Your task to perform on an android device: Search for "macbook air" on ebay.com, select the first entry, and add it to the cart. Image 0: 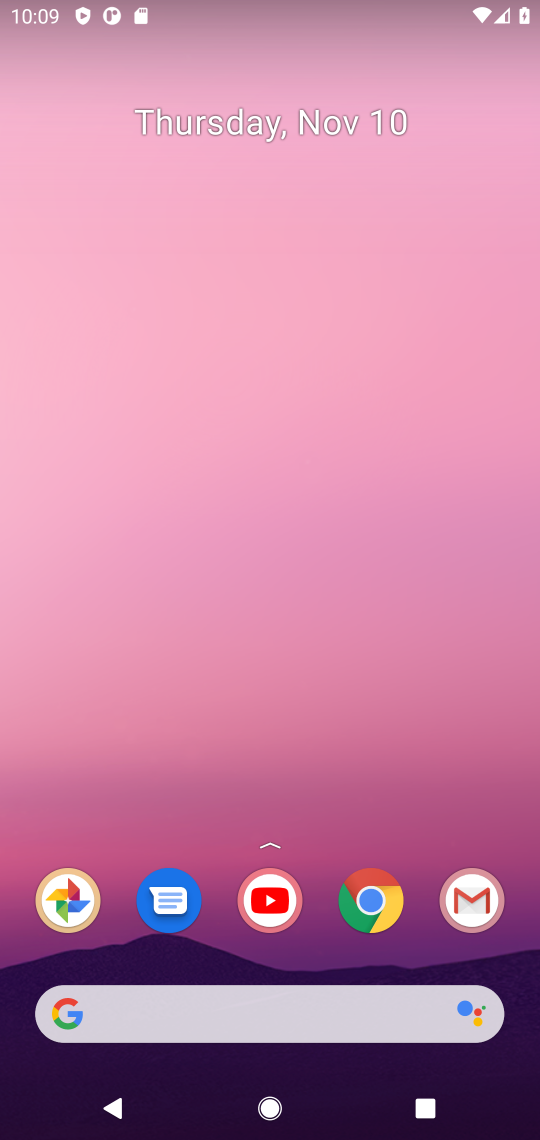
Step 0: click (364, 897)
Your task to perform on an android device: Search for "macbook air" on ebay.com, select the first entry, and add it to the cart. Image 1: 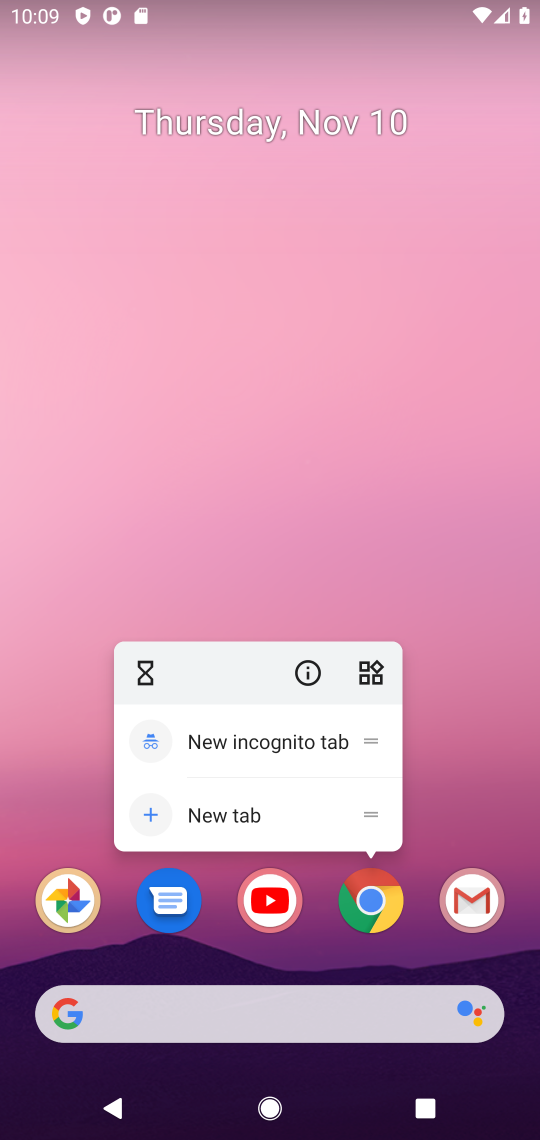
Step 1: click (368, 897)
Your task to perform on an android device: Search for "macbook air" on ebay.com, select the first entry, and add it to the cart. Image 2: 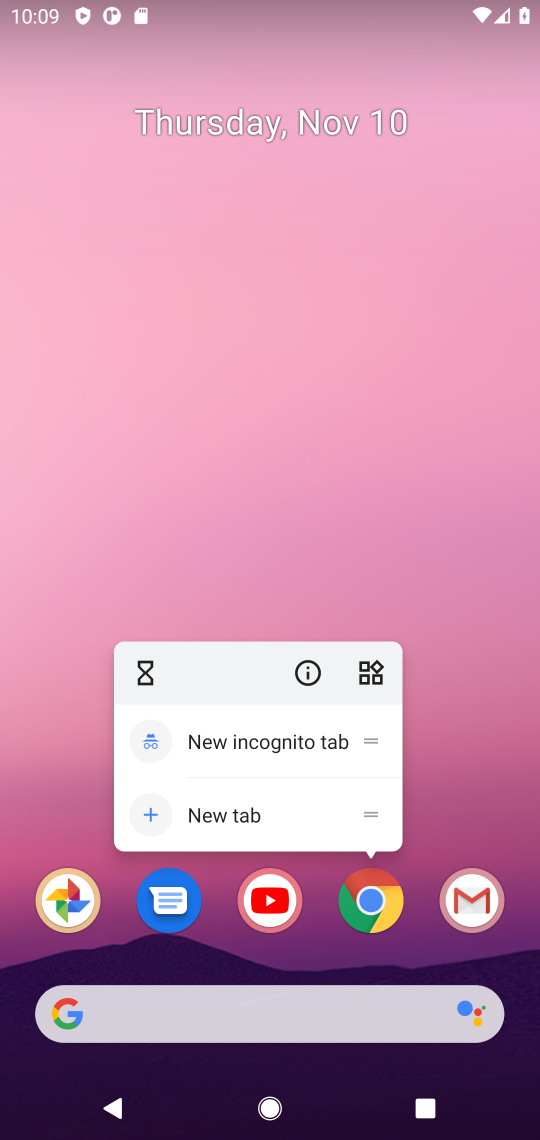
Step 2: click (368, 900)
Your task to perform on an android device: Search for "macbook air" on ebay.com, select the first entry, and add it to the cart. Image 3: 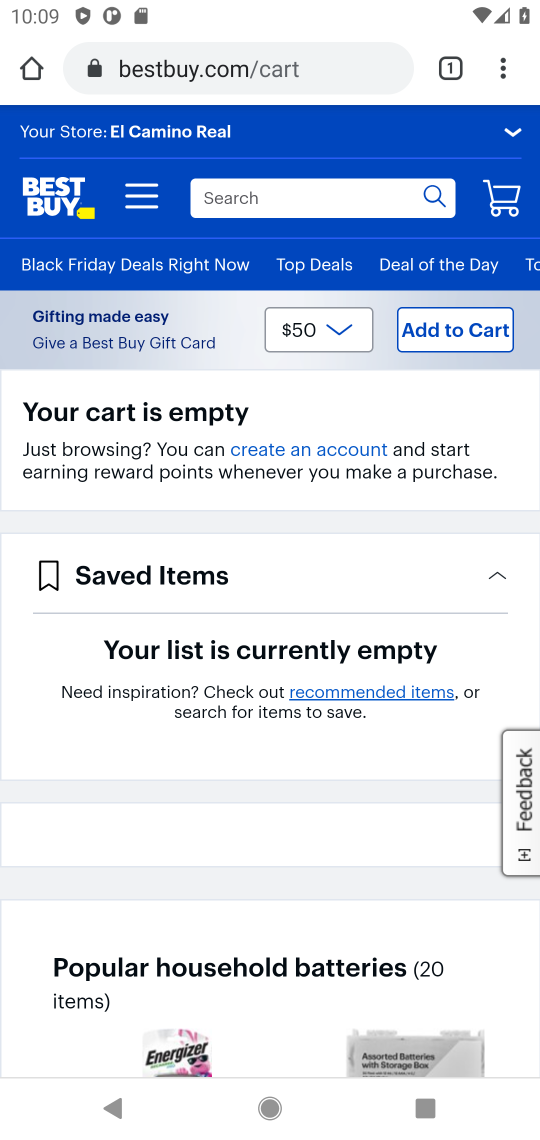
Step 3: click (345, 65)
Your task to perform on an android device: Search for "macbook air" on ebay.com, select the first entry, and add it to the cart. Image 4: 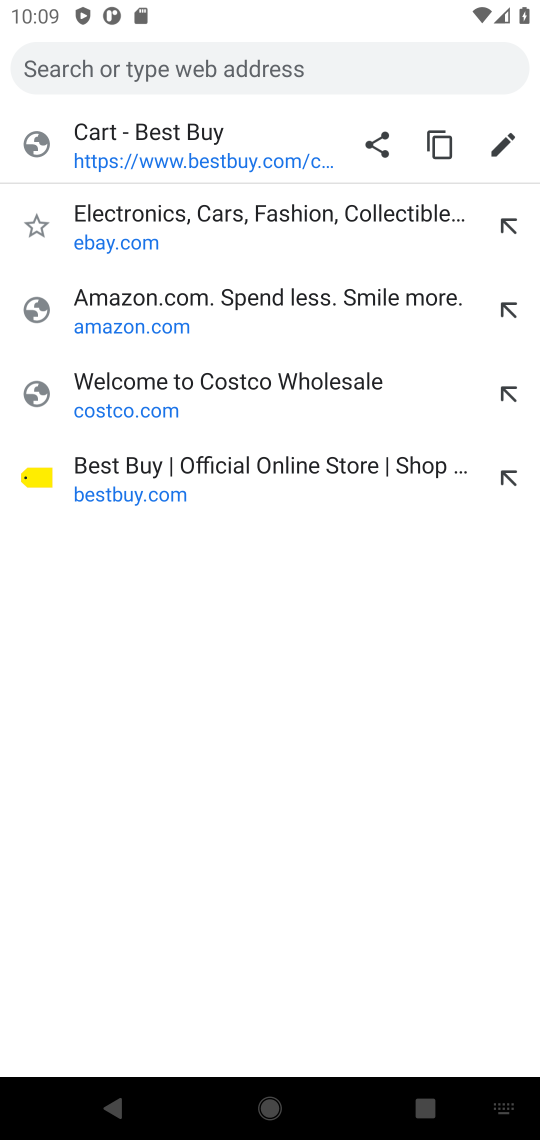
Step 4: click (142, 234)
Your task to perform on an android device: Search for "macbook air" on ebay.com, select the first entry, and add it to the cart. Image 5: 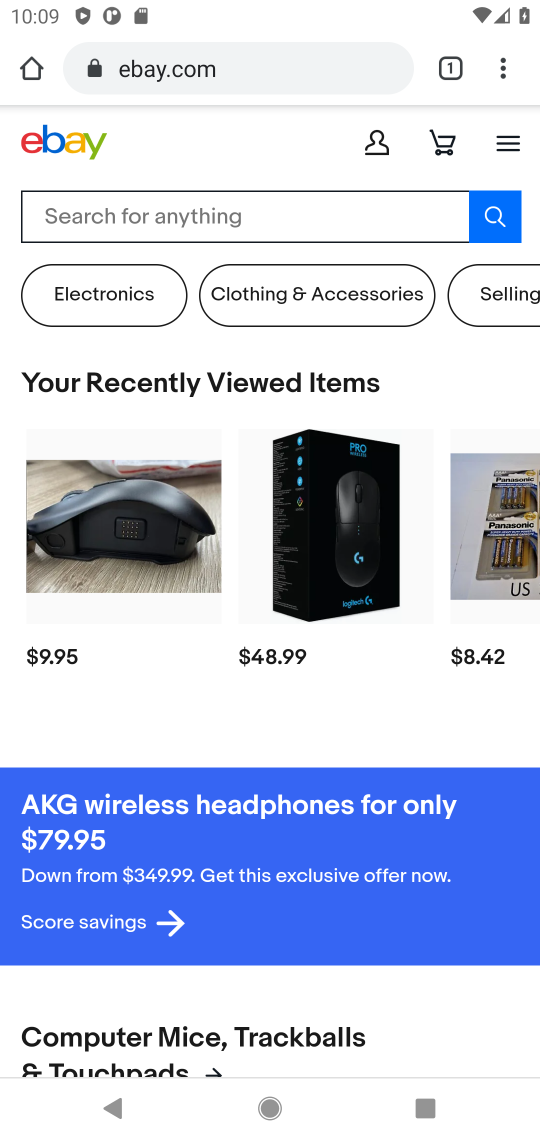
Step 5: click (322, 217)
Your task to perform on an android device: Search for "macbook air" on ebay.com, select the first entry, and add it to the cart. Image 6: 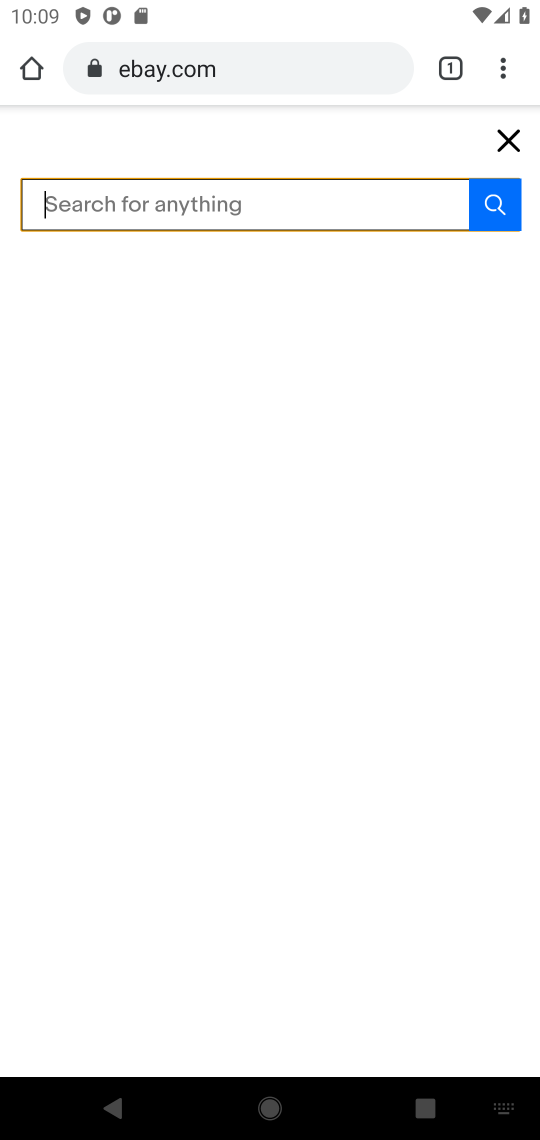
Step 6: type "macbook air"
Your task to perform on an android device: Search for "macbook air" on ebay.com, select the first entry, and add it to the cart. Image 7: 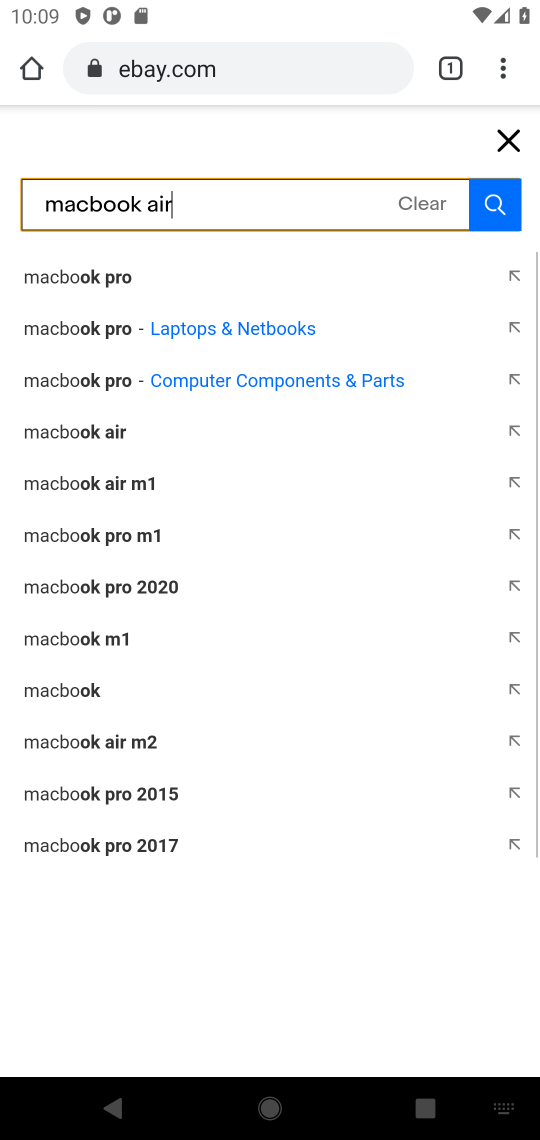
Step 7: press enter
Your task to perform on an android device: Search for "macbook air" on ebay.com, select the first entry, and add it to the cart. Image 8: 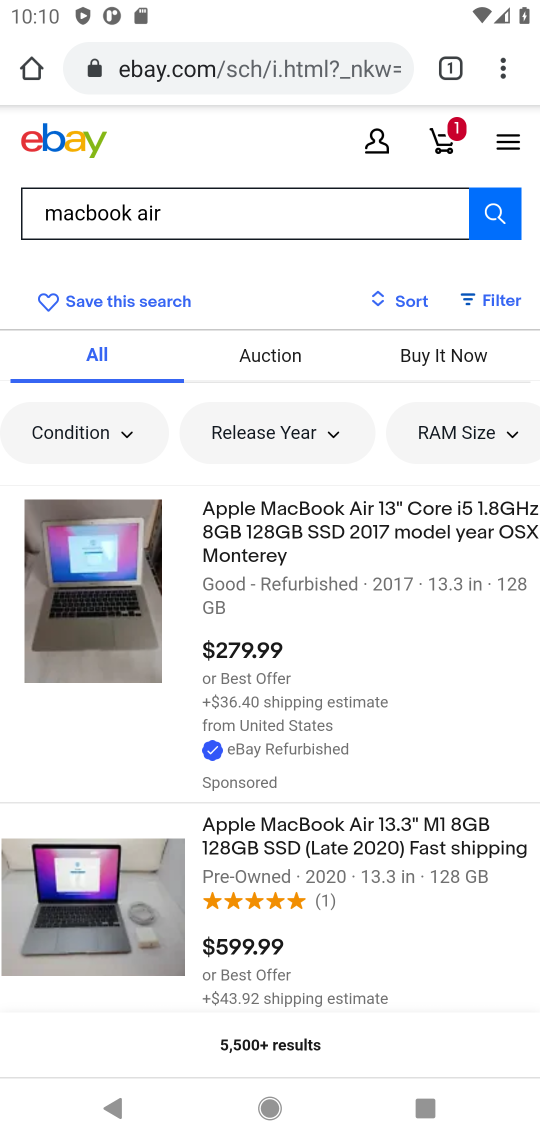
Step 8: click (318, 561)
Your task to perform on an android device: Search for "macbook air" on ebay.com, select the first entry, and add it to the cart. Image 9: 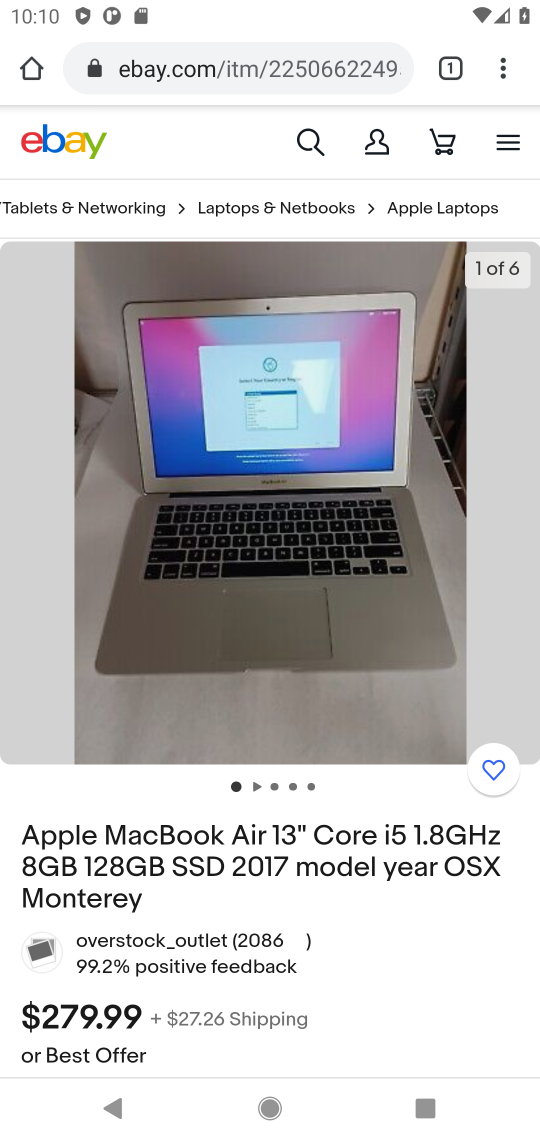
Step 9: drag from (405, 983) to (487, 98)
Your task to perform on an android device: Search for "macbook air" on ebay.com, select the first entry, and add it to the cart. Image 10: 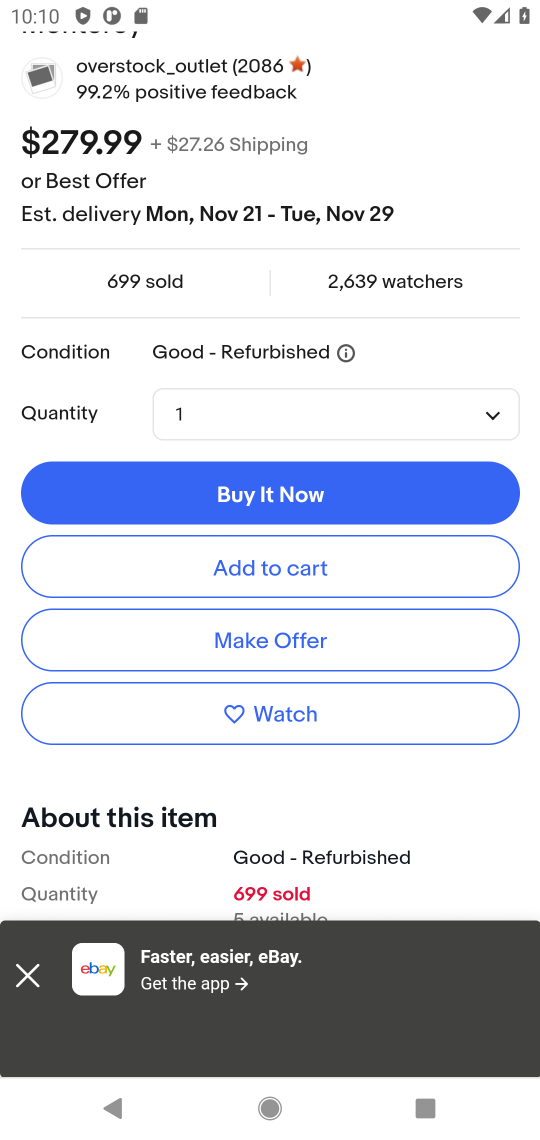
Step 10: click (275, 569)
Your task to perform on an android device: Search for "macbook air" on ebay.com, select the first entry, and add it to the cart. Image 11: 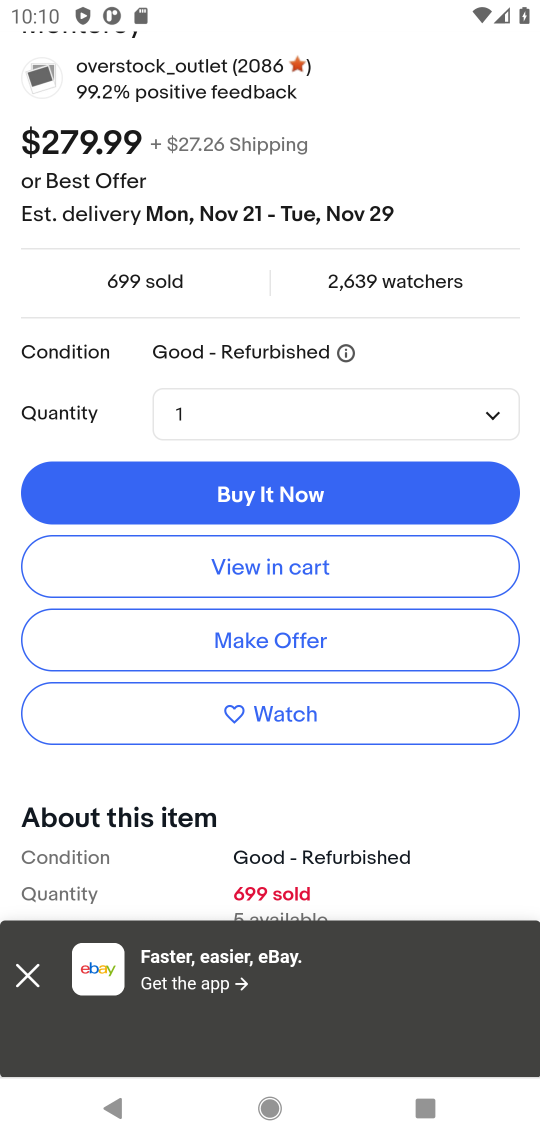
Step 11: click (291, 570)
Your task to perform on an android device: Search for "macbook air" on ebay.com, select the first entry, and add it to the cart. Image 12: 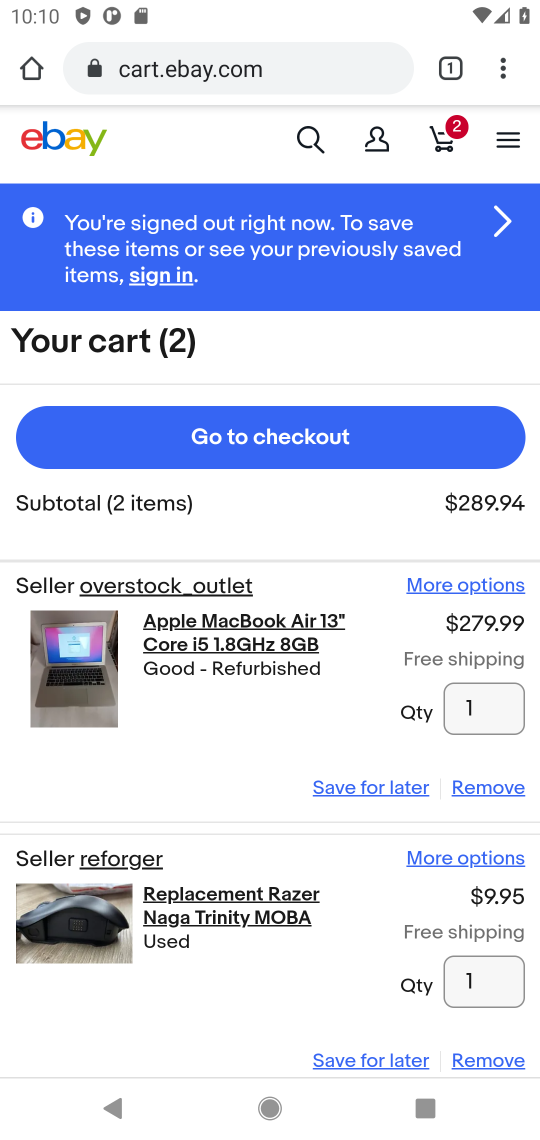
Step 12: click (491, 1058)
Your task to perform on an android device: Search for "macbook air" on ebay.com, select the first entry, and add it to the cart. Image 13: 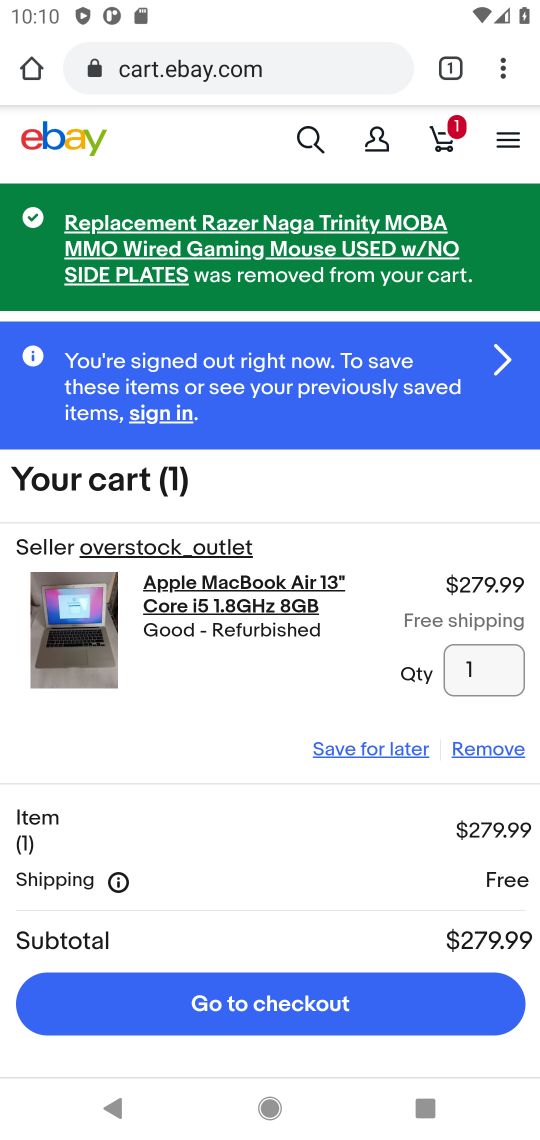
Step 13: task complete